Your task to perform on an android device: toggle data saver in the chrome app Image 0: 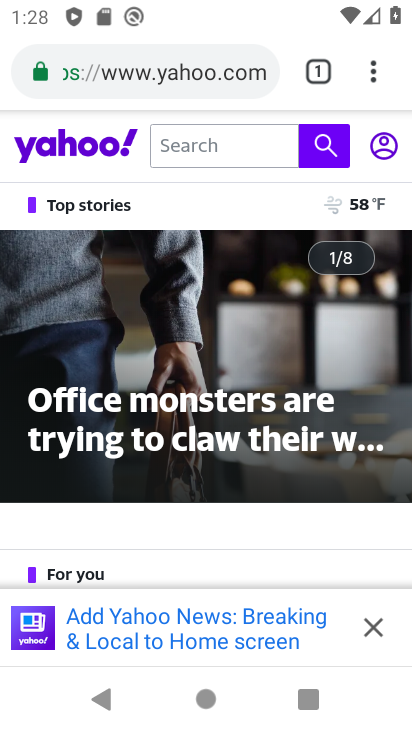
Step 0: press home button
Your task to perform on an android device: toggle data saver in the chrome app Image 1: 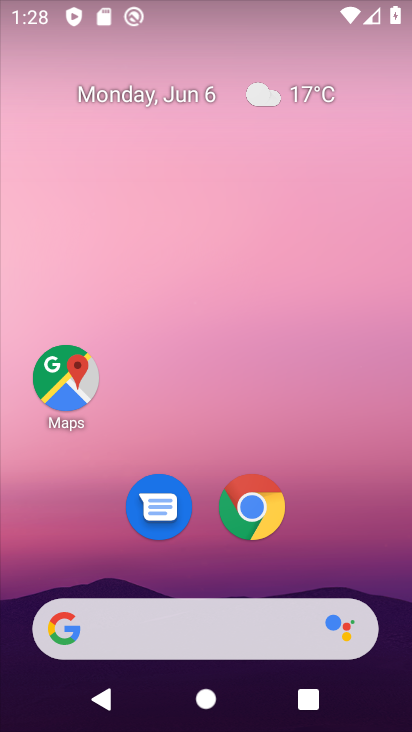
Step 1: drag from (186, 683) to (225, 156)
Your task to perform on an android device: toggle data saver in the chrome app Image 2: 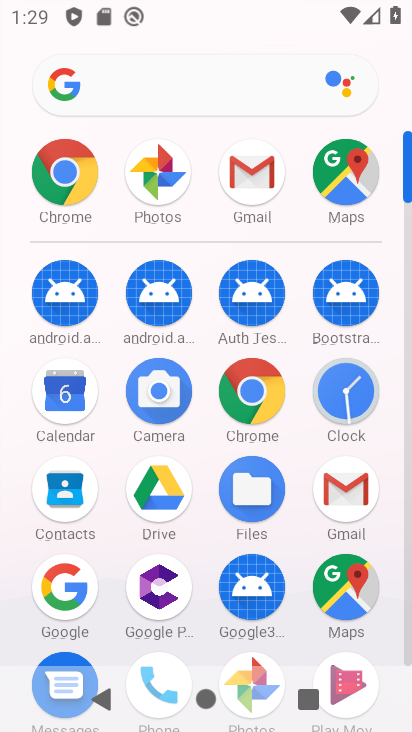
Step 2: click (253, 374)
Your task to perform on an android device: toggle data saver in the chrome app Image 3: 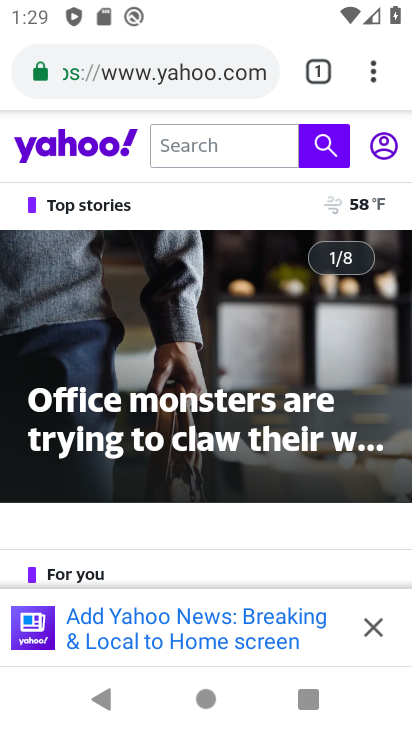
Step 3: click (351, 74)
Your task to perform on an android device: toggle data saver in the chrome app Image 4: 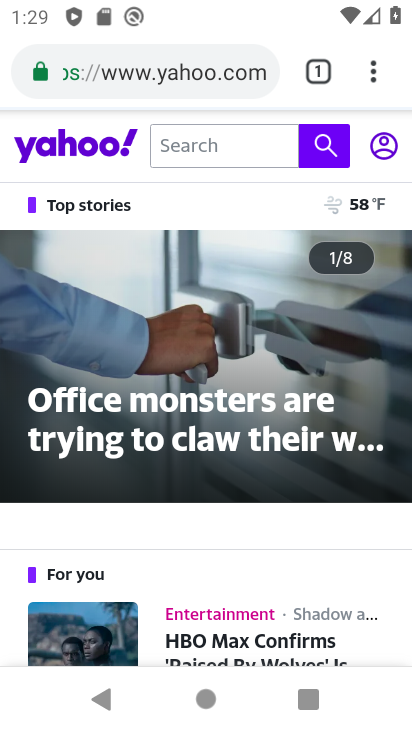
Step 4: click (379, 100)
Your task to perform on an android device: toggle data saver in the chrome app Image 5: 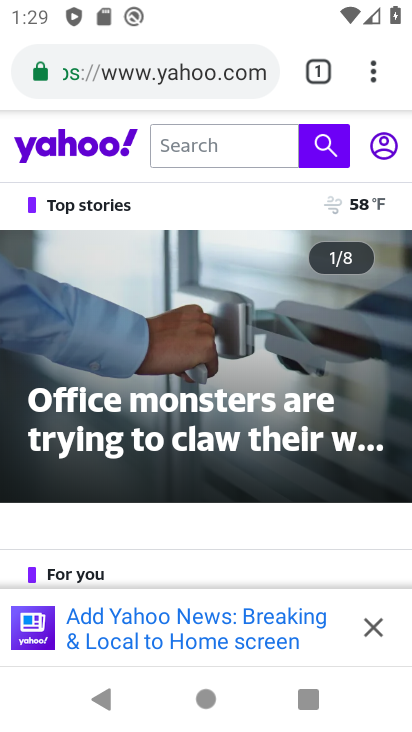
Step 5: click (372, 83)
Your task to perform on an android device: toggle data saver in the chrome app Image 6: 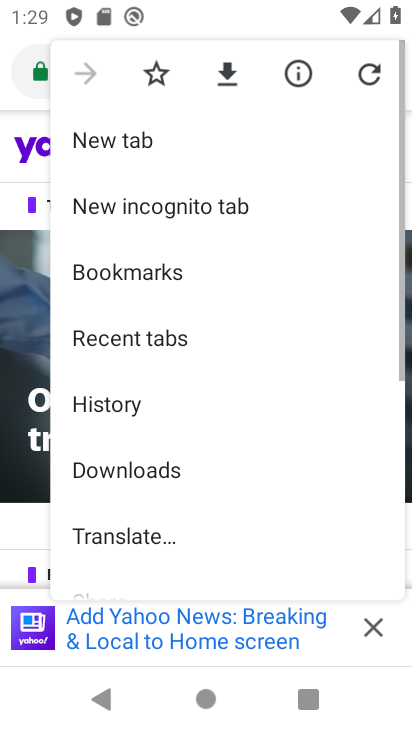
Step 6: drag from (207, 506) to (246, 305)
Your task to perform on an android device: toggle data saver in the chrome app Image 7: 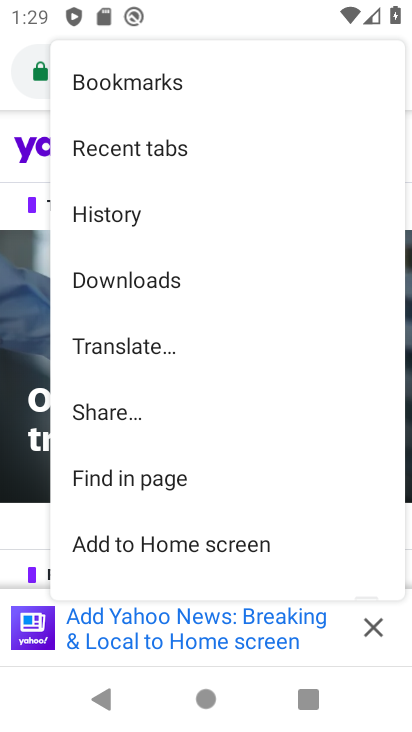
Step 7: drag from (144, 474) to (193, 332)
Your task to perform on an android device: toggle data saver in the chrome app Image 8: 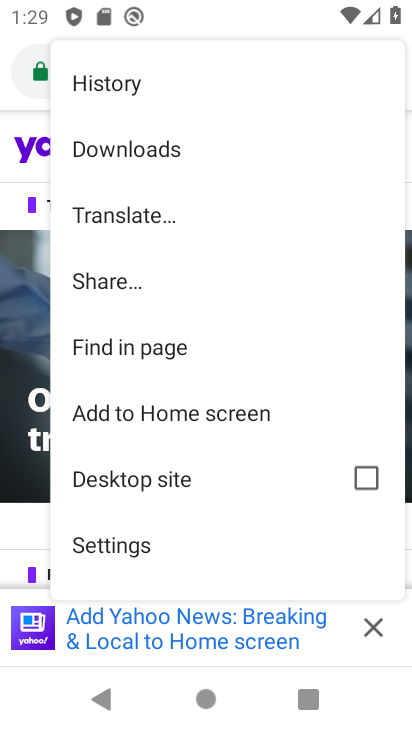
Step 8: click (124, 546)
Your task to perform on an android device: toggle data saver in the chrome app Image 9: 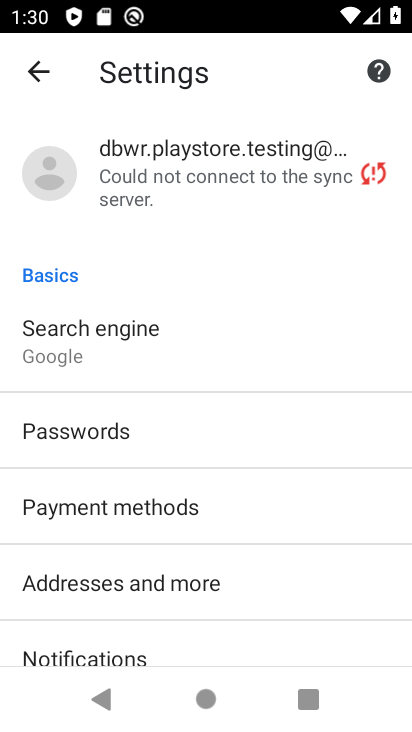
Step 9: drag from (129, 579) to (182, 320)
Your task to perform on an android device: toggle data saver in the chrome app Image 10: 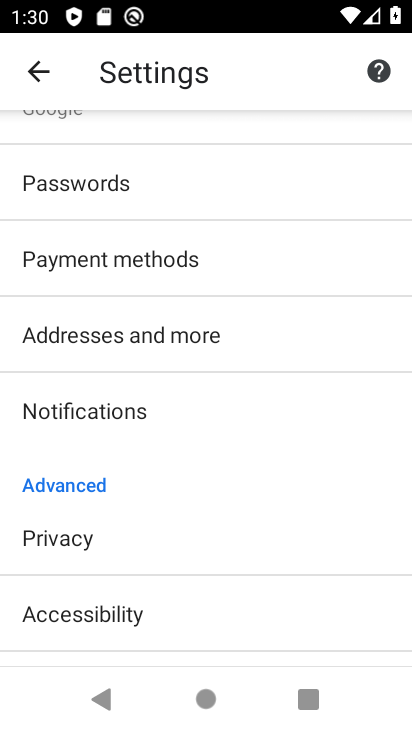
Step 10: drag from (110, 533) to (130, 294)
Your task to perform on an android device: toggle data saver in the chrome app Image 11: 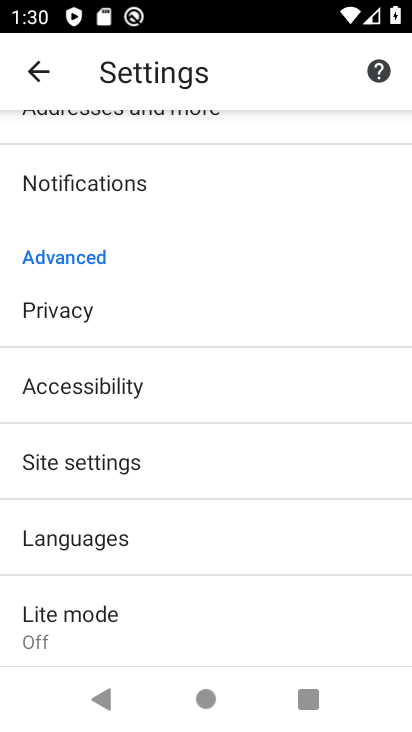
Step 11: click (86, 606)
Your task to perform on an android device: toggle data saver in the chrome app Image 12: 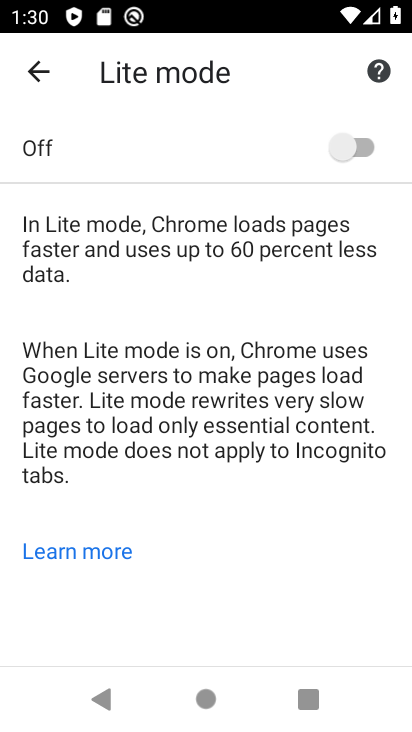
Step 12: click (363, 156)
Your task to perform on an android device: toggle data saver in the chrome app Image 13: 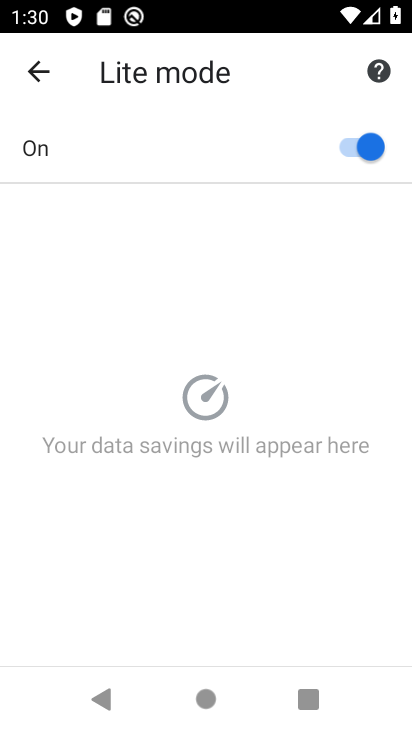
Step 13: click (346, 167)
Your task to perform on an android device: toggle data saver in the chrome app Image 14: 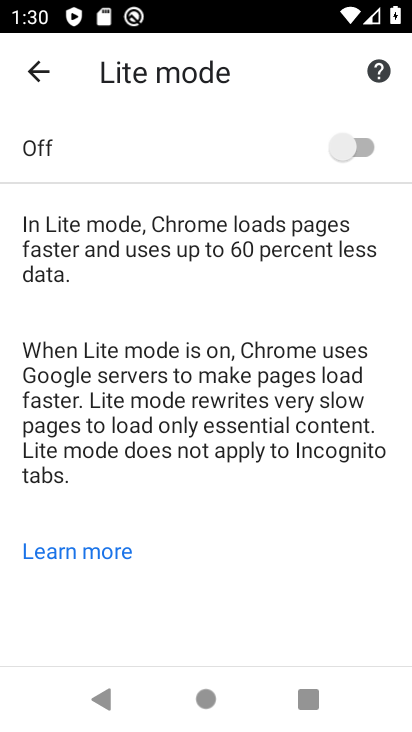
Step 14: press home button
Your task to perform on an android device: toggle data saver in the chrome app Image 15: 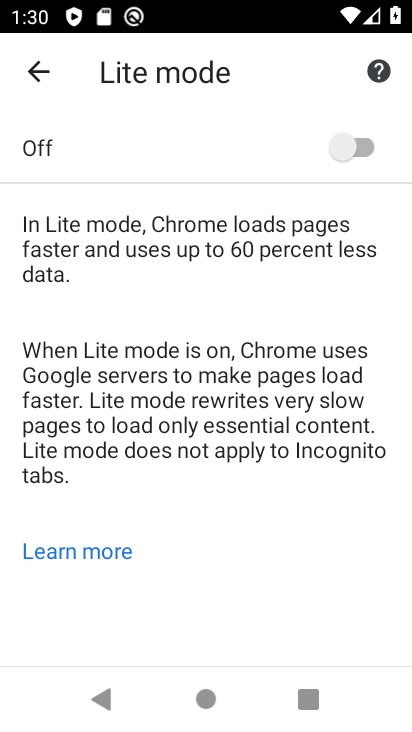
Step 15: press home button
Your task to perform on an android device: toggle data saver in the chrome app Image 16: 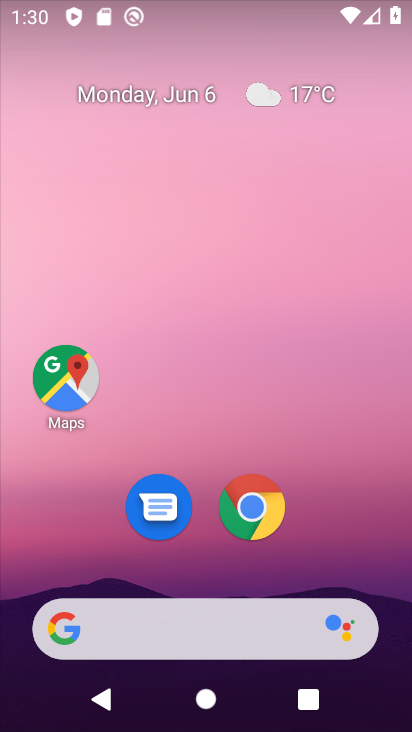
Step 16: drag from (225, 684) to (244, 134)
Your task to perform on an android device: toggle data saver in the chrome app Image 17: 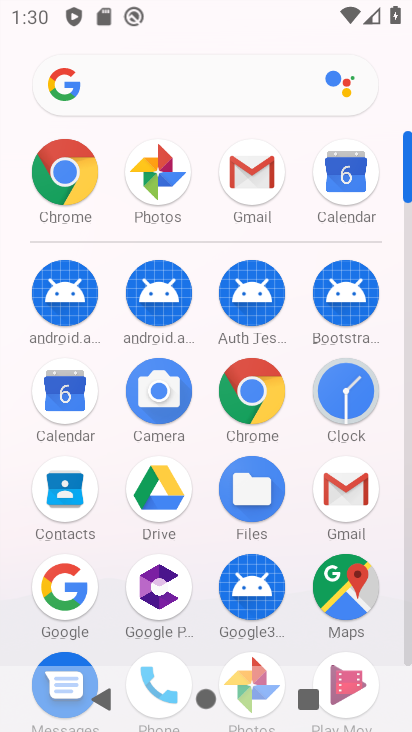
Step 17: click (70, 185)
Your task to perform on an android device: toggle data saver in the chrome app Image 18: 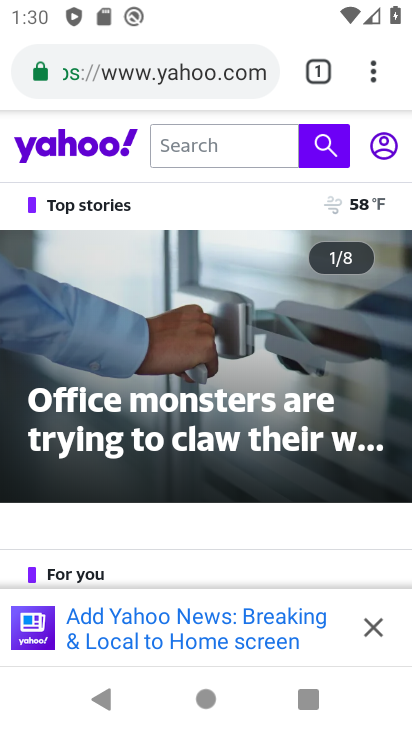
Step 18: click (371, 90)
Your task to perform on an android device: toggle data saver in the chrome app Image 19: 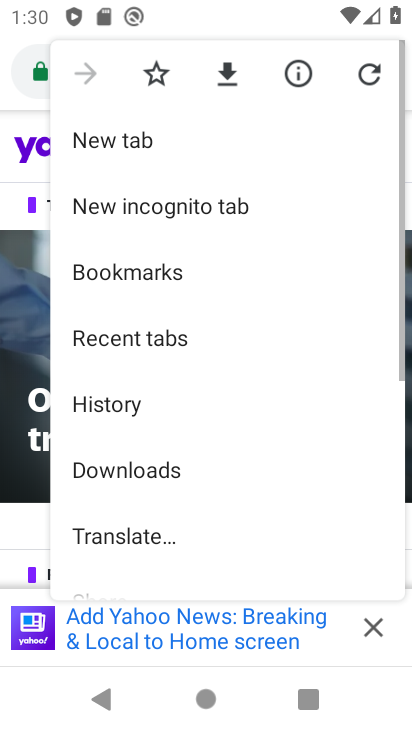
Step 19: drag from (183, 519) to (266, 204)
Your task to perform on an android device: toggle data saver in the chrome app Image 20: 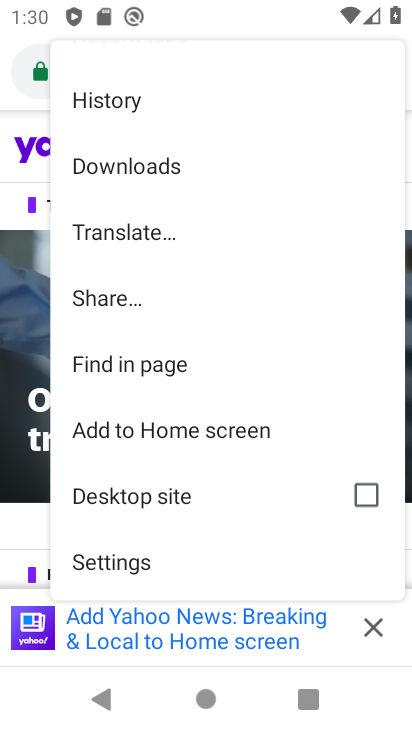
Step 20: click (157, 555)
Your task to perform on an android device: toggle data saver in the chrome app Image 21: 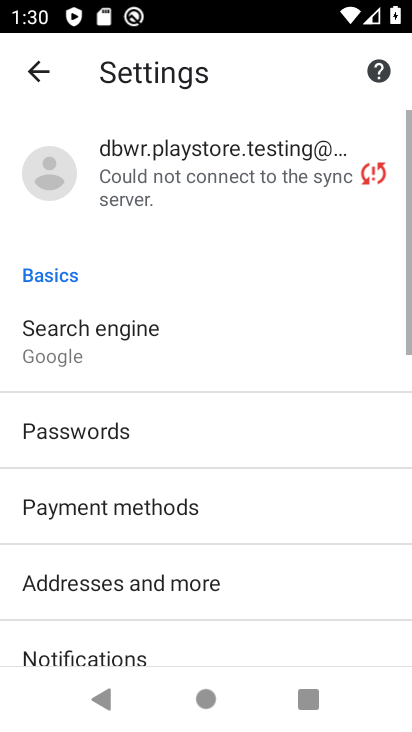
Step 21: drag from (167, 597) to (156, 302)
Your task to perform on an android device: toggle data saver in the chrome app Image 22: 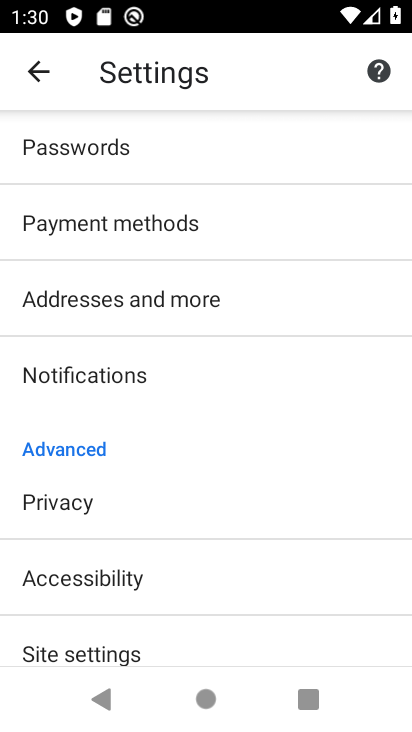
Step 22: drag from (62, 637) to (114, 433)
Your task to perform on an android device: toggle data saver in the chrome app Image 23: 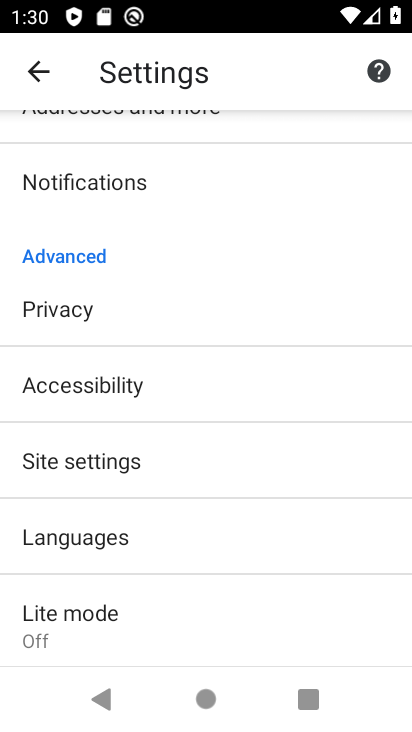
Step 23: click (82, 615)
Your task to perform on an android device: toggle data saver in the chrome app Image 24: 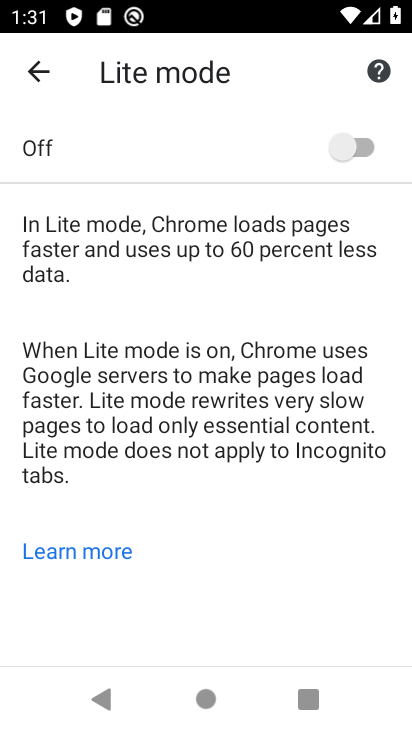
Step 24: task complete